Your task to perform on an android device: Open accessibility settings Image 0: 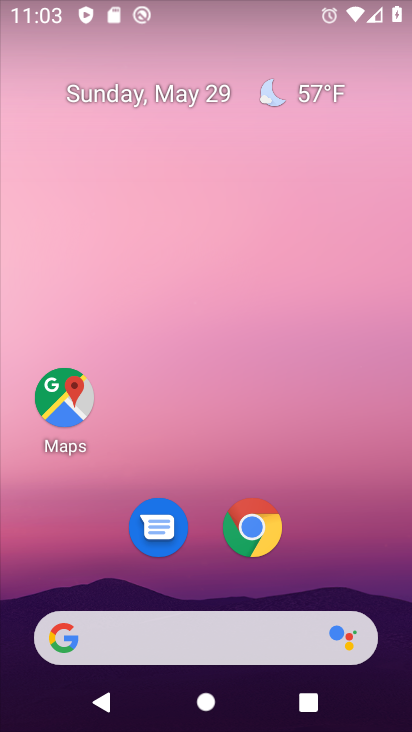
Step 0: drag from (207, 572) to (150, 132)
Your task to perform on an android device: Open accessibility settings Image 1: 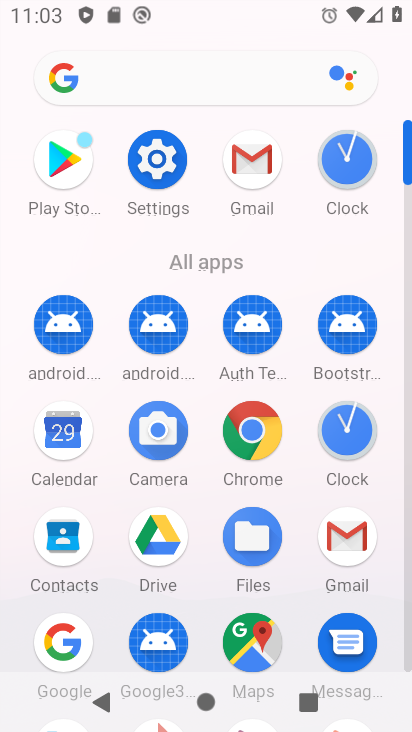
Step 1: click (150, 132)
Your task to perform on an android device: Open accessibility settings Image 2: 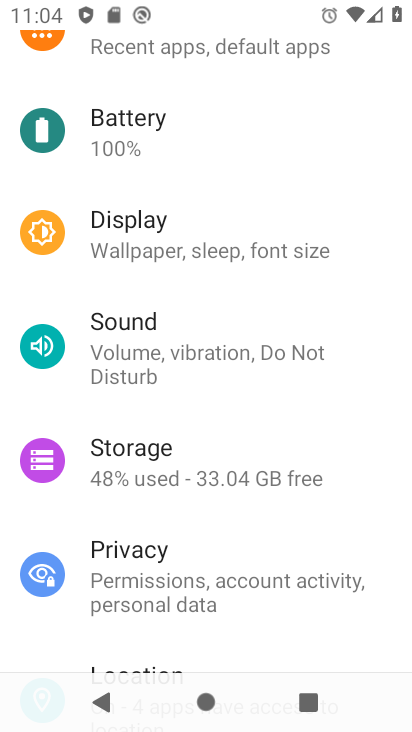
Step 2: drag from (101, 638) to (266, 19)
Your task to perform on an android device: Open accessibility settings Image 3: 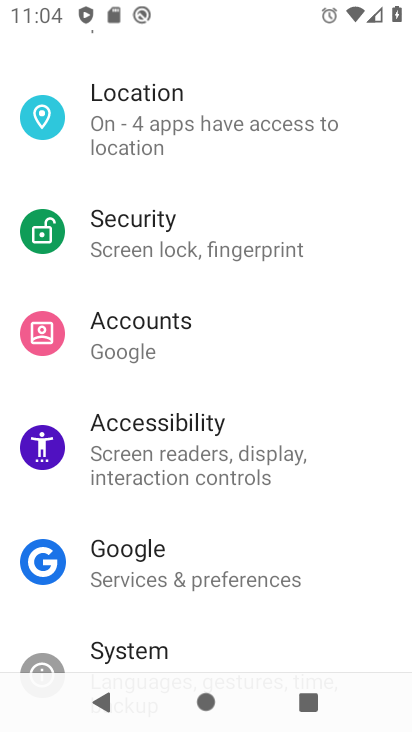
Step 3: drag from (140, 616) to (225, 166)
Your task to perform on an android device: Open accessibility settings Image 4: 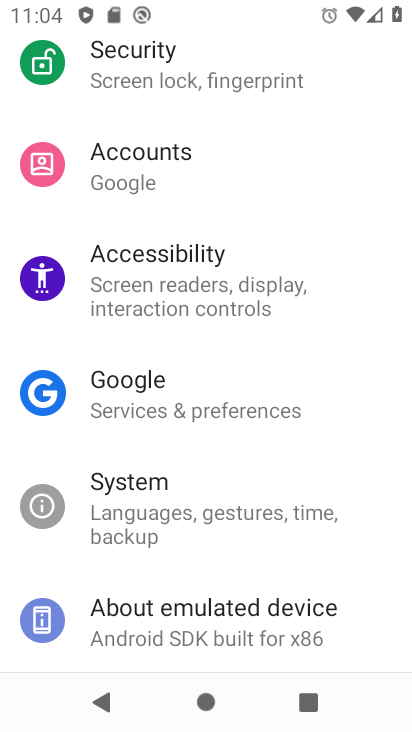
Step 4: click (172, 302)
Your task to perform on an android device: Open accessibility settings Image 5: 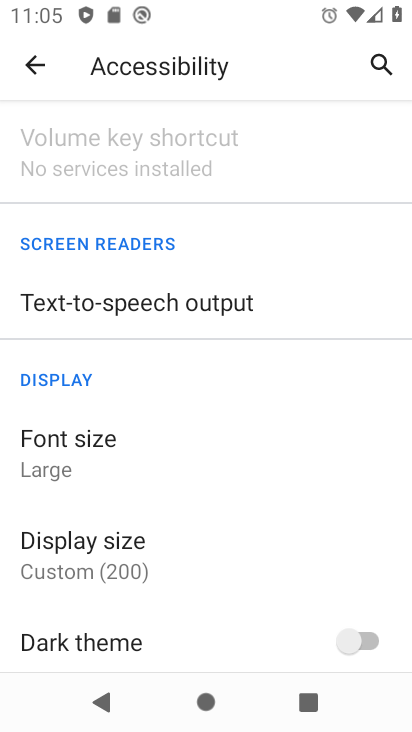
Step 5: task complete